Your task to perform on an android device: check data usage Image 0: 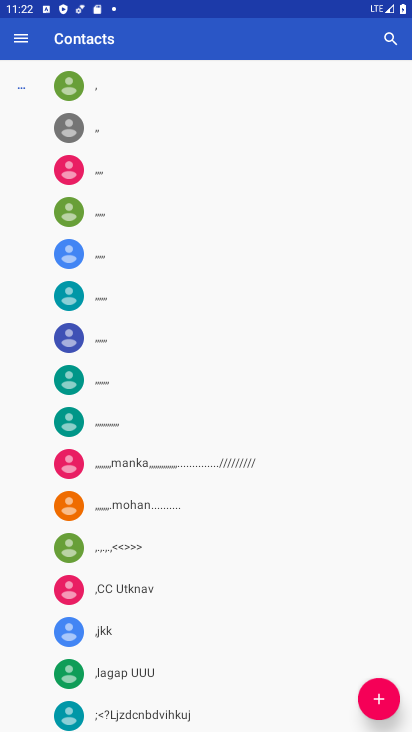
Step 0: press home button
Your task to perform on an android device: check data usage Image 1: 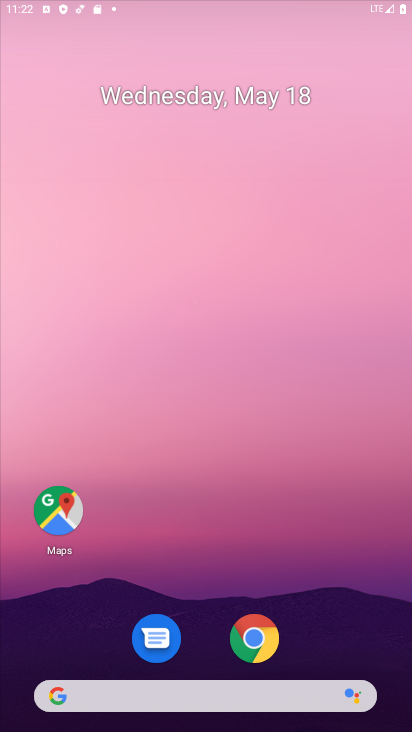
Step 1: drag from (346, 582) to (265, 118)
Your task to perform on an android device: check data usage Image 2: 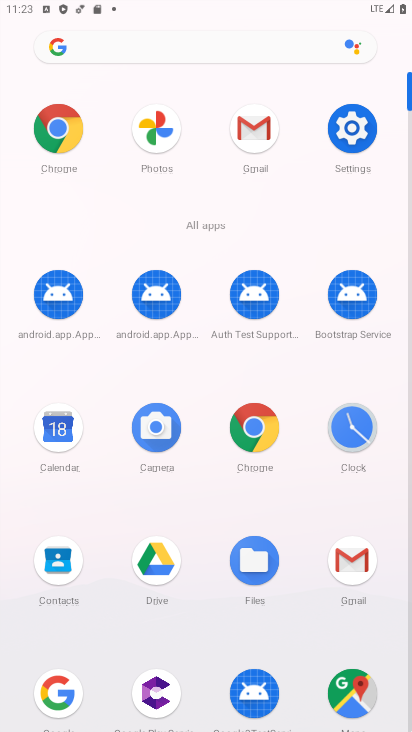
Step 2: click (353, 139)
Your task to perform on an android device: check data usage Image 3: 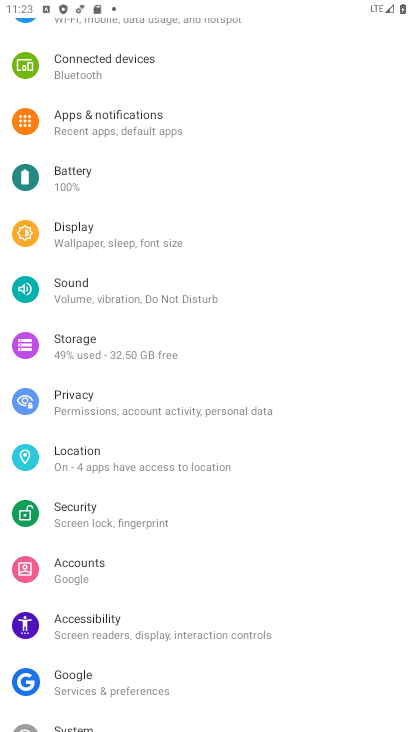
Step 3: drag from (154, 186) to (200, 561)
Your task to perform on an android device: check data usage Image 4: 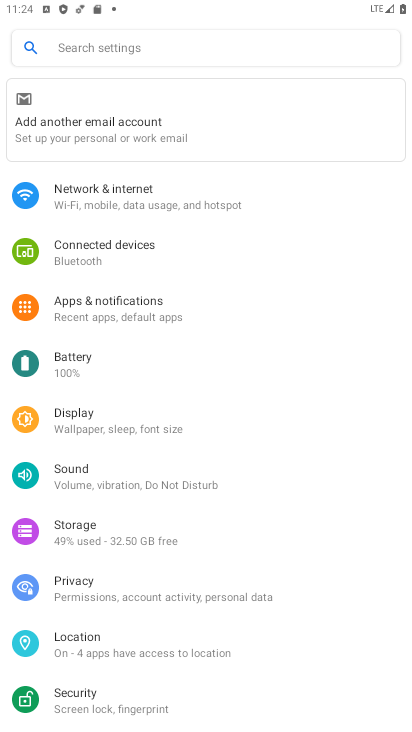
Step 4: click (186, 189)
Your task to perform on an android device: check data usage Image 5: 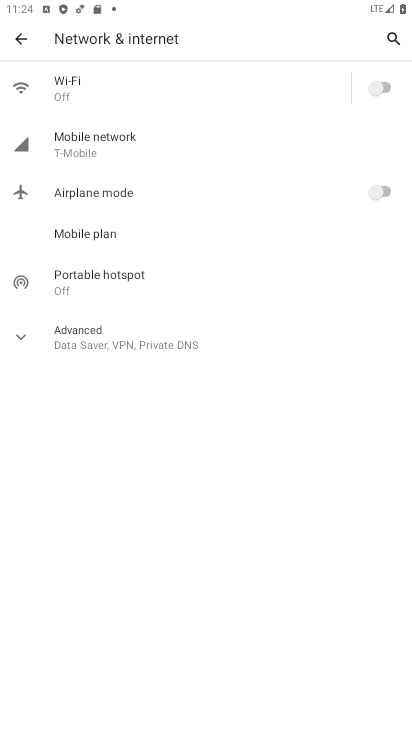
Step 5: click (140, 152)
Your task to perform on an android device: check data usage Image 6: 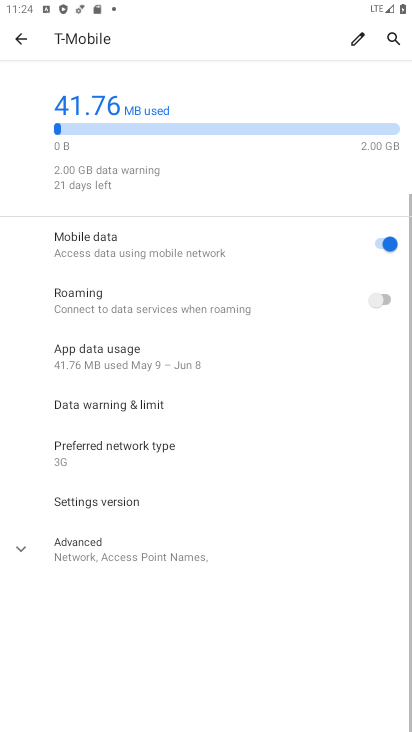
Step 6: click (163, 367)
Your task to perform on an android device: check data usage Image 7: 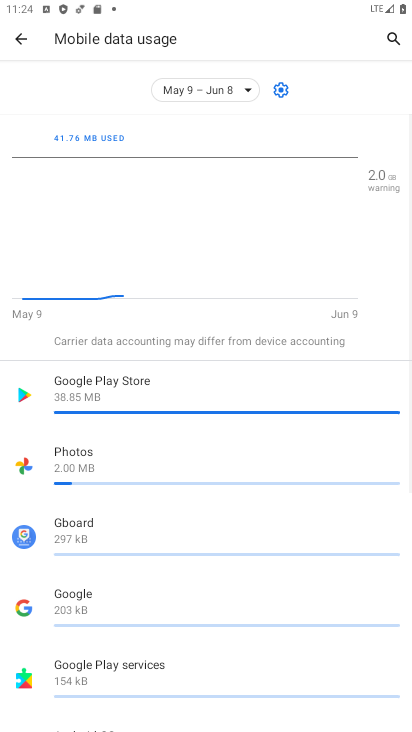
Step 7: task complete